Your task to perform on an android device: Do I have any events tomorrow? Image 0: 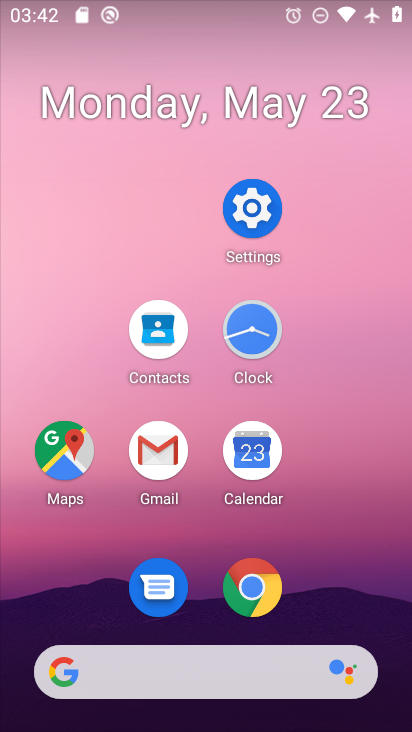
Step 0: click (238, 211)
Your task to perform on an android device: Do I have any events tomorrow? Image 1: 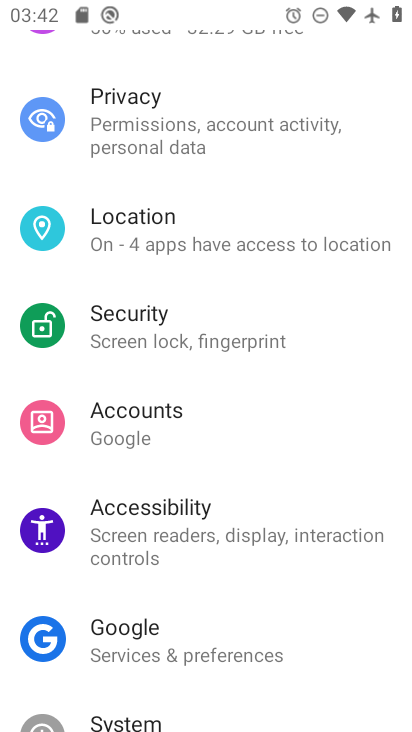
Step 1: press home button
Your task to perform on an android device: Do I have any events tomorrow? Image 2: 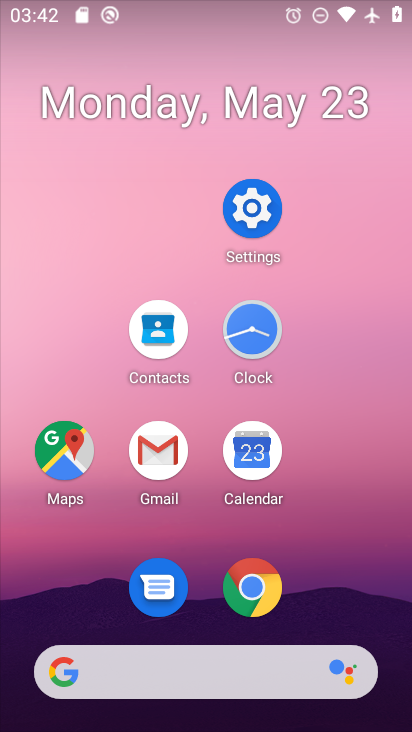
Step 2: click (251, 480)
Your task to perform on an android device: Do I have any events tomorrow? Image 3: 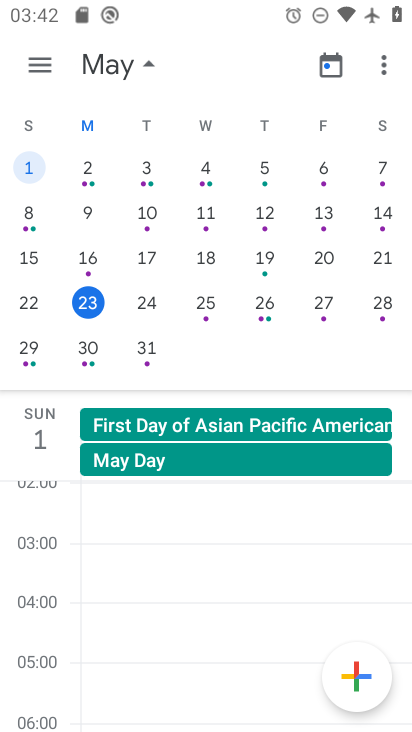
Step 3: task complete